Your task to perform on an android device: Turn off the flashlight Image 0: 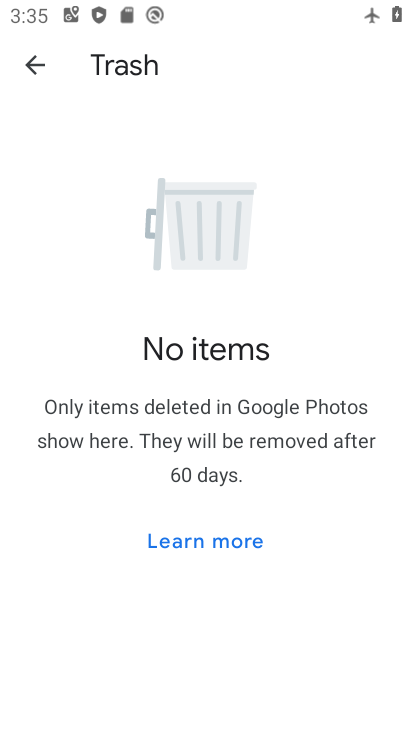
Step 0: press home button
Your task to perform on an android device: Turn off the flashlight Image 1: 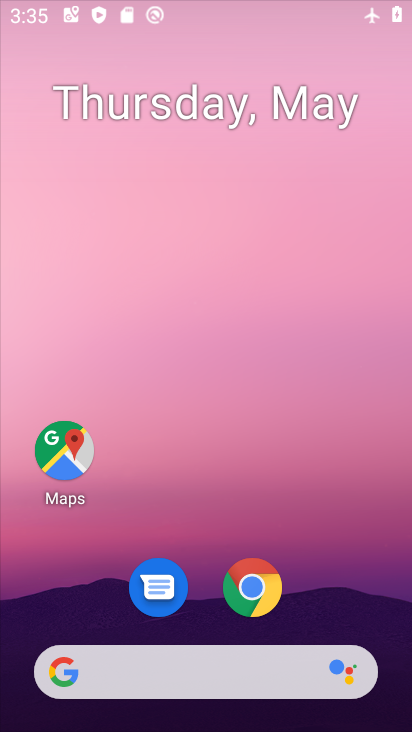
Step 1: task complete